Your task to perform on an android device: set the stopwatch Image 0: 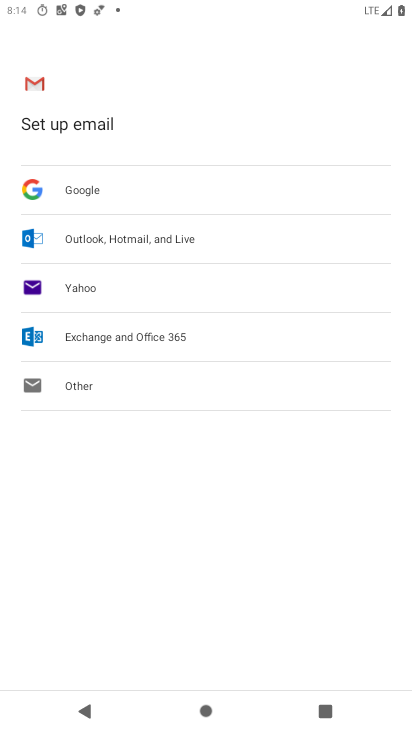
Step 0: press home button
Your task to perform on an android device: set the stopwatch Image 1: 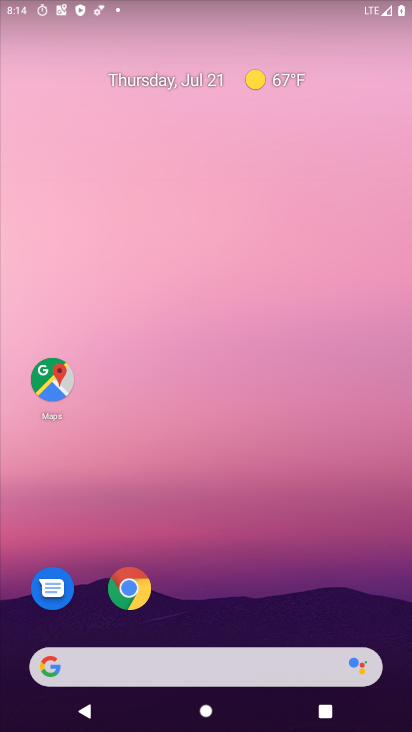
Step 1: drag from (187, 648) to (328, 70)
Your task to perform on an android device: set the stopwatch Image 2: 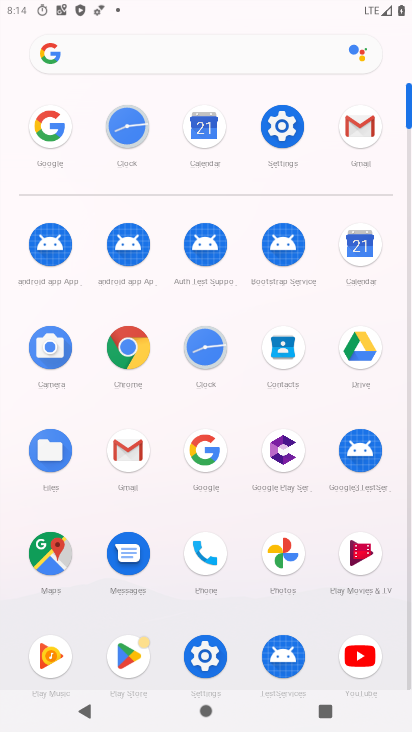
Step 2: click (205, 355)
Your task to perform on an android device: set the stopwatch Image 3: 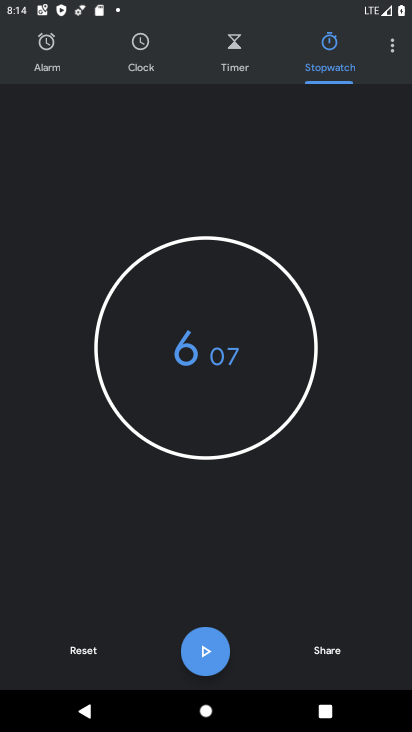
Step 3: click (214, 655)
Your task to perform on an android device: set the stopwatch Image 4: 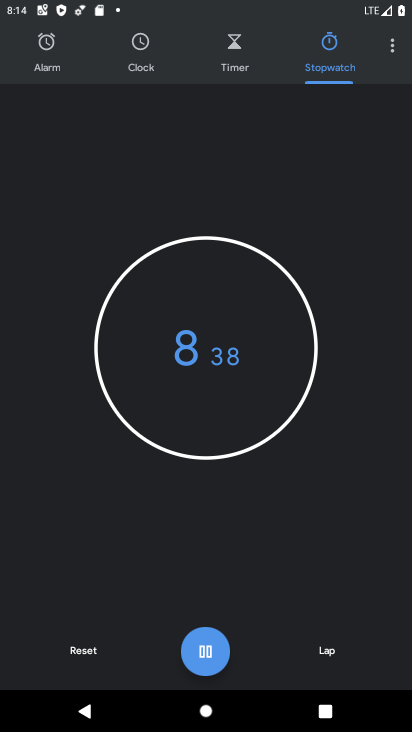
Step 4: click (214, 655)
Your task to perform on an android device: set the stopwatch Image 5: 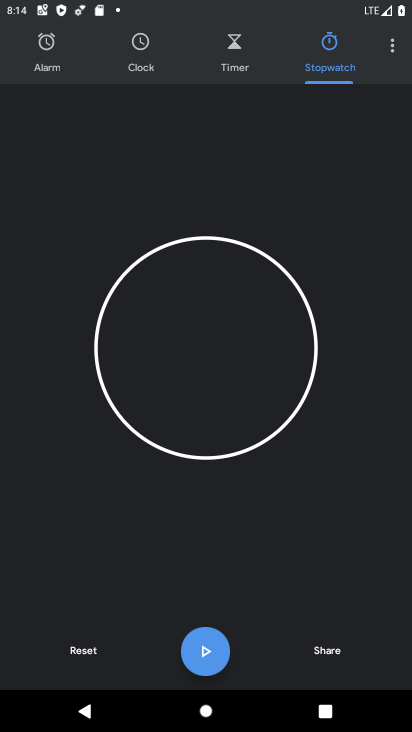
Step 5: click (332, 649)
Your task to perform on an android device: set the stopwatch Image 6: 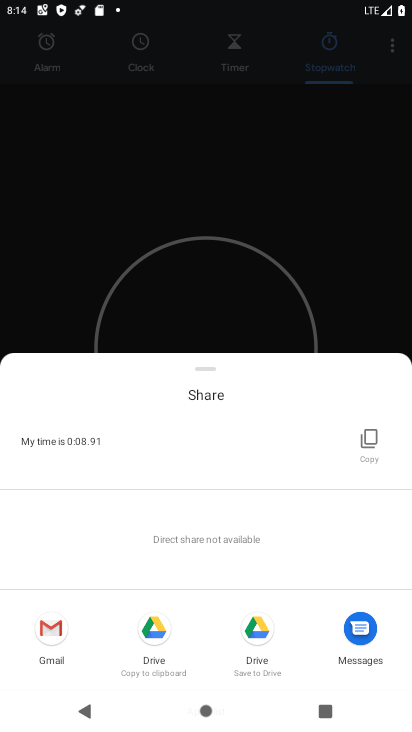
Step 6: click (363, 177)
Your task to perform on an android device: set the stopwatch Image 7: 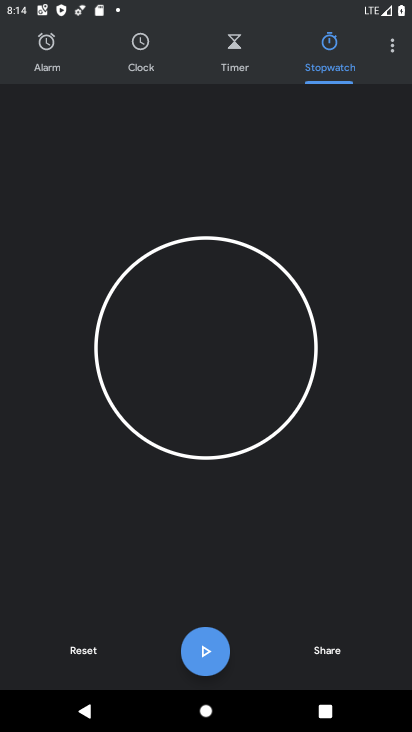
Step 7: task complete